Your task to perform on an android device: Open Google Chrome and open the bookmarks view Image 0: 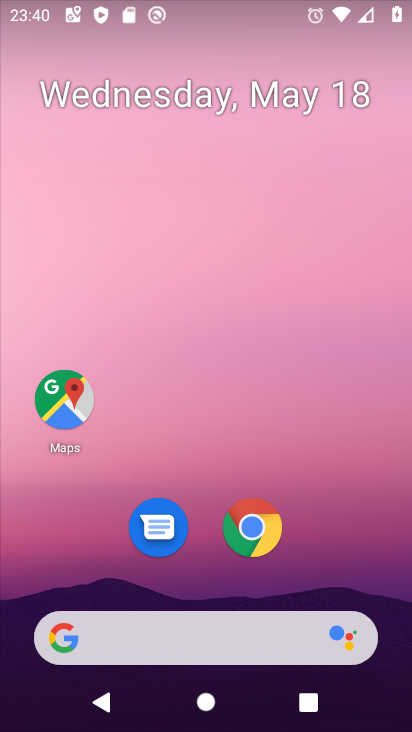
Step 0: click (265, 526)
Your task to perform on an android device: Open Google Chrome and open the bookmarks view Image 1: 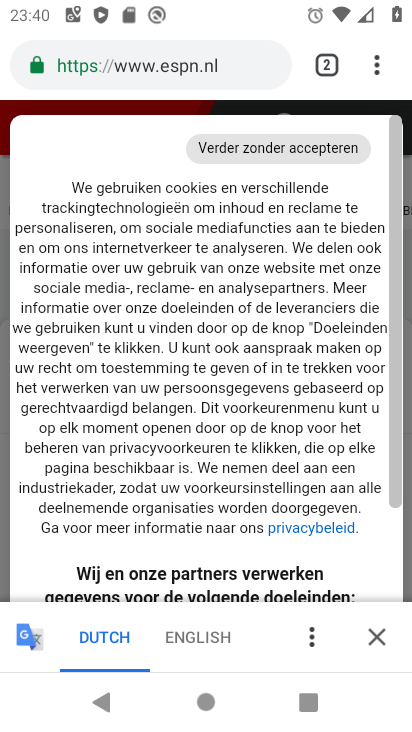
Step 1: click (383, 67)
Your task to perform on an android device: Open Google Chrome and open the bookmarks view Image 2: 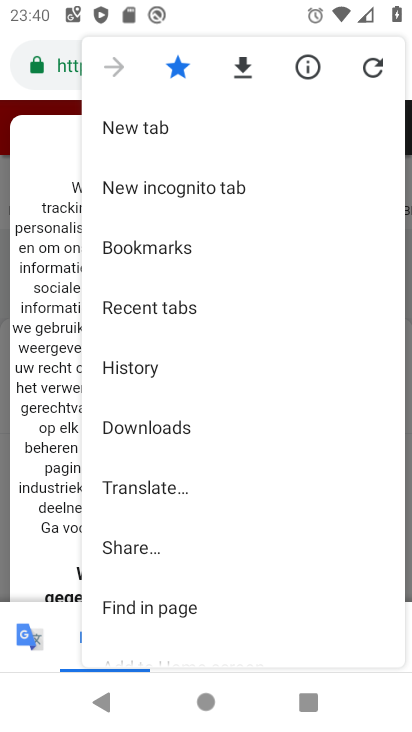
Step 2: click (213, 227)
Your task to perform on an android device: Open Google Chrome and open the bookmarks view Image 3: 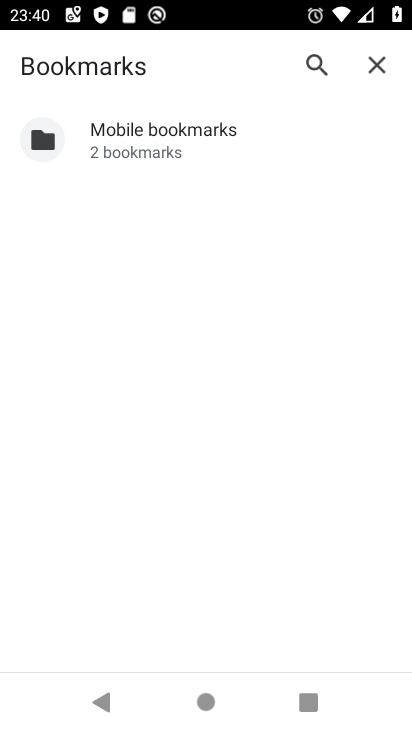
Step 3: click (150, 150)
Your task to perform on an android device: Open Google Chrome and open the bookmarks view Image 4: 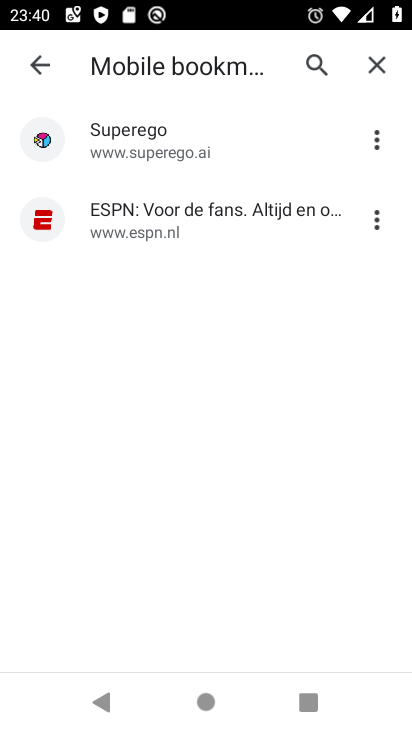
Step 4: click (150, 150)
Your task to perform on an android device: Open Google Chrome and open the bookmarks view Image 5: 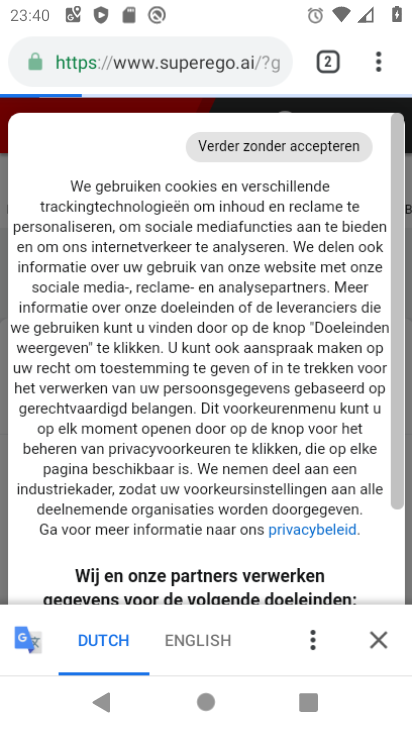
Step 5: task complete